Your task to perform on an android device: turn on location history Image 0: 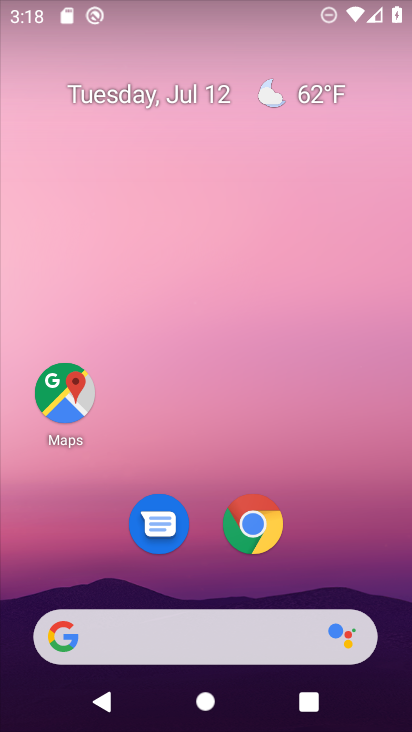
Step 0: drag from (330, 546) to (327, 0)
Your task to perform on an android device: turn on location history Image 1: 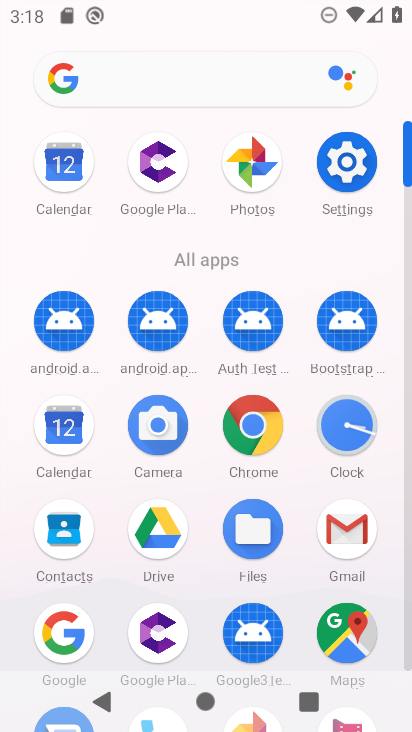
Step 1: click (352, 145)
Your task to perform on an android device: turn on location history Image 2: 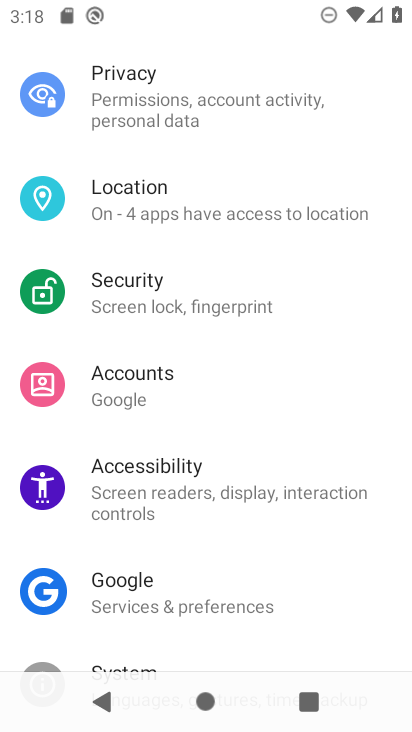
Step 2: click (239, 209)
Your task to perform on an android device: turn on location history Image 3: 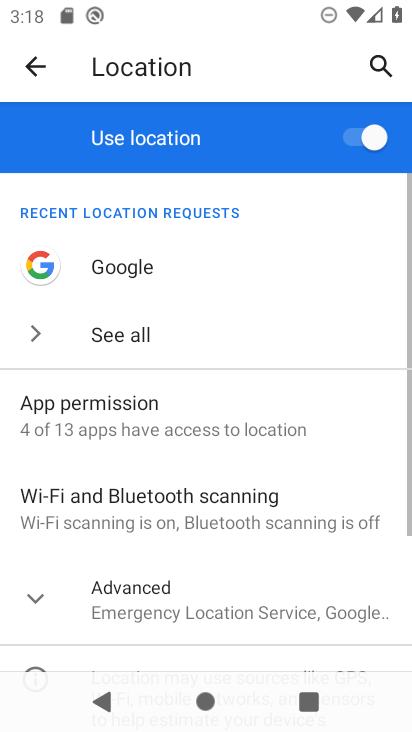
Step 3: click (34, 595)
Your task to perform on an android device: turn on location history Image 4: 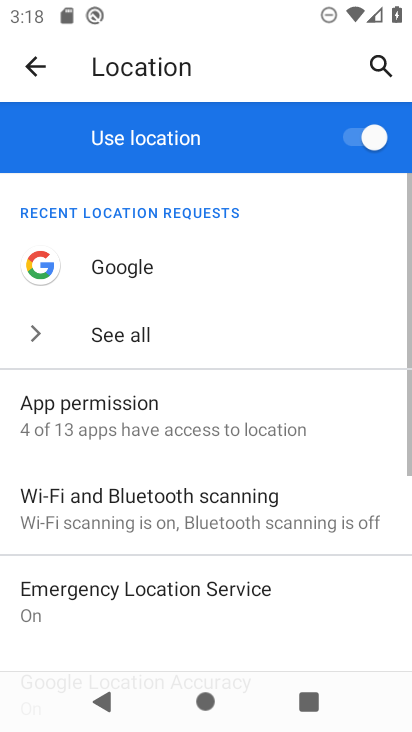
Step 4: drag from (194, 568) to (261, 187)
Your task to perform on an android device: turn on location history Image 5: 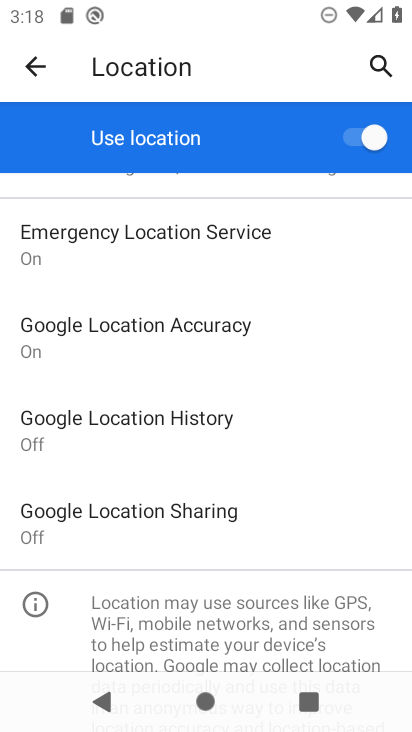
Step 5: click (179, 428)
Your task to perform on an android device: turn on location history Image 6: 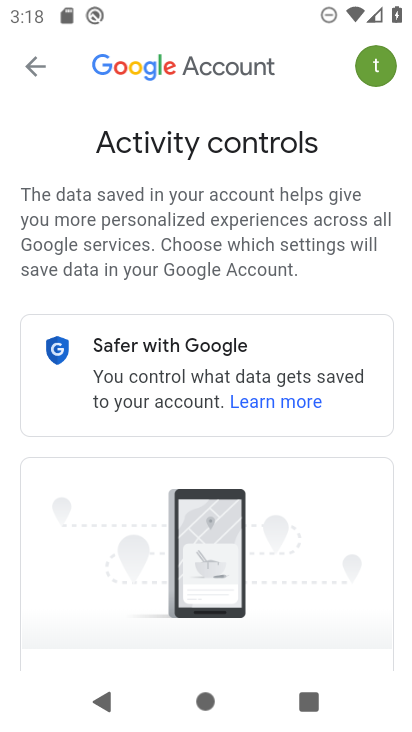
Step 6: drag from (114, 541) to (159, 194)
Your task to perform on an android device: turn on location history Image 7: 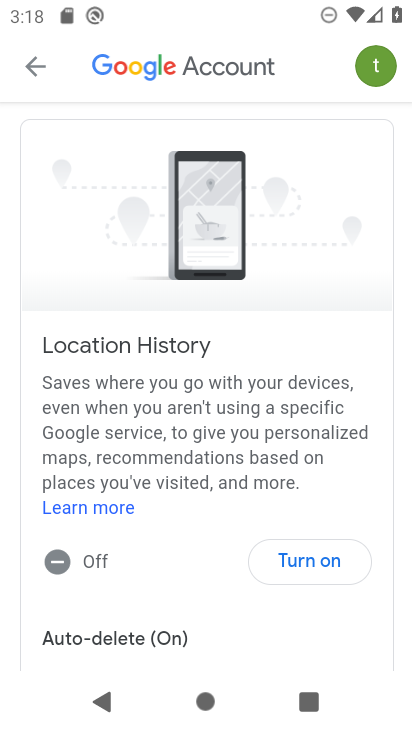
Step 7: click (333, 557)
Your task to perform on an android device: turn on location history Image 8: 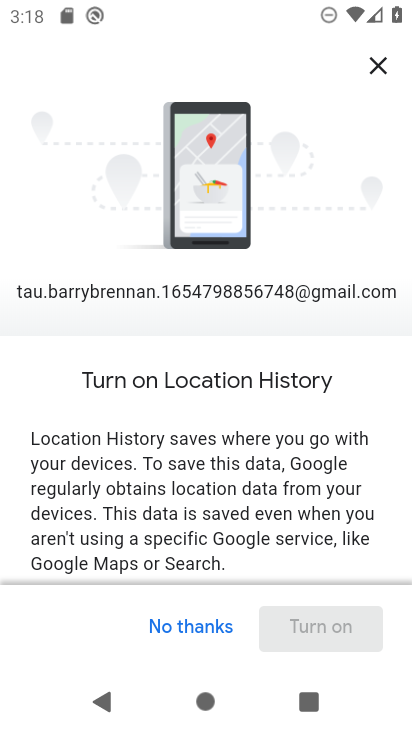
Step 8: drag from (320, 529) to (339, 26)
Your task to perform on an android device: turn on location history Image 9: 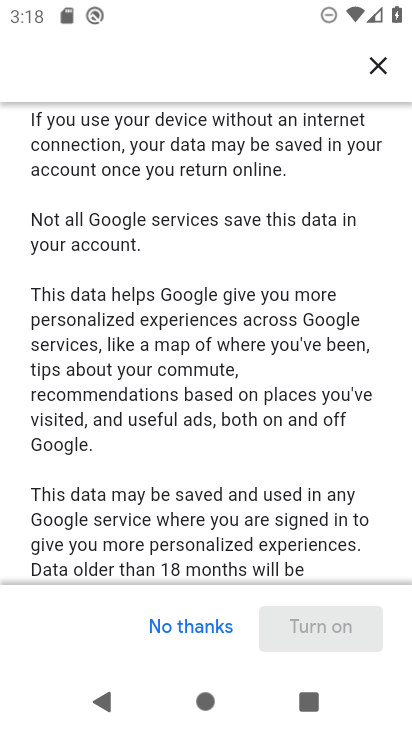
Step 9: drag from (253, 469) to (286, 98)
Your task to perform on an android device: turn on location history Image 10: 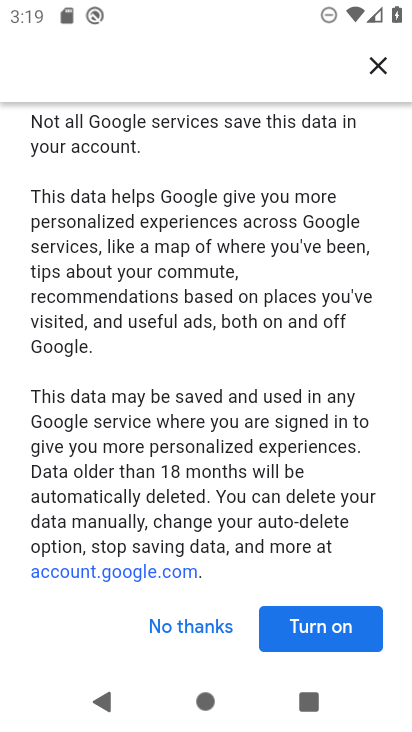
Step 10: click (348, 626)
Your task to perform on an android device: turn on location history Image 11: 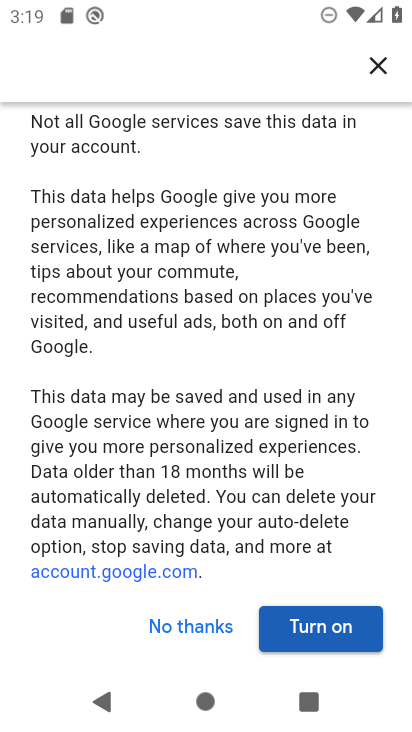
Step 11: click (348, 626)
Your task to perform on an android device: turn on location history Image 12: 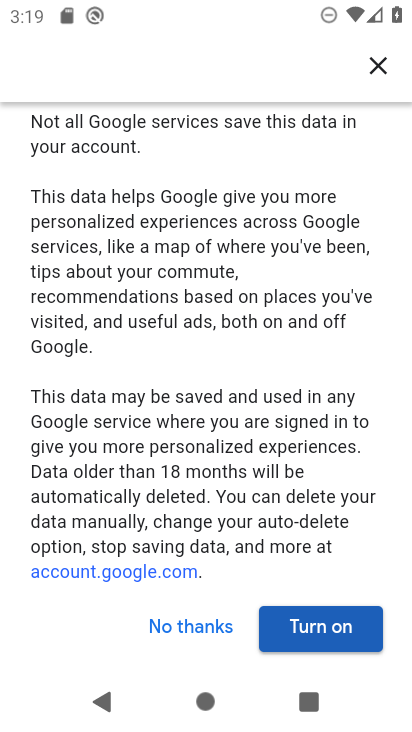
Step 12: click (348, 626)
Your task to perform on an android device: turn on location history Image 13: 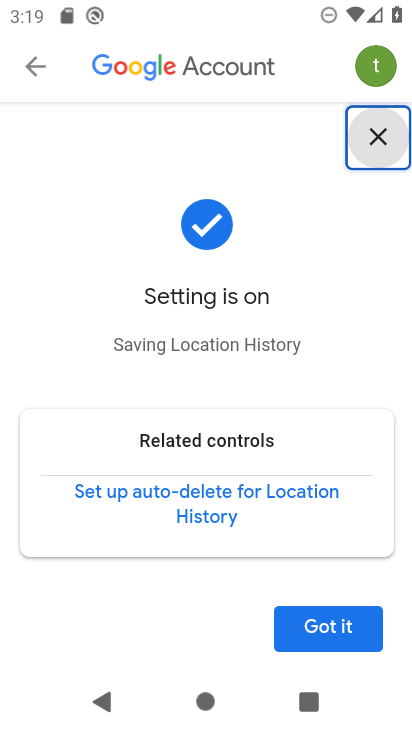
Step 13: click (326, 626)
Your task to perform on an android device: turn on location history Image 14: 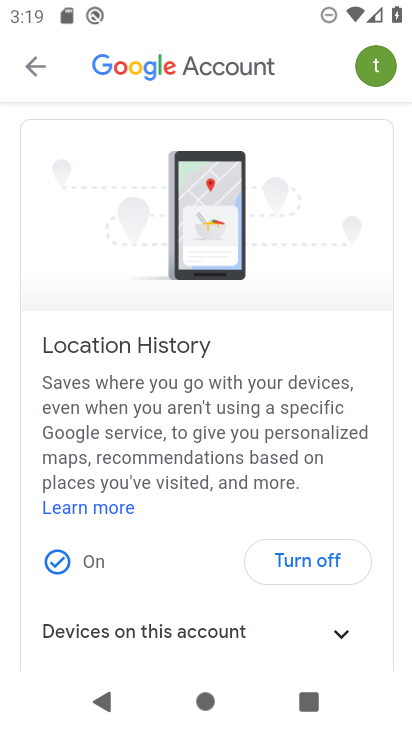
Step 14: task complete